Your task to perform on an android device: Go to network settings Image 0: 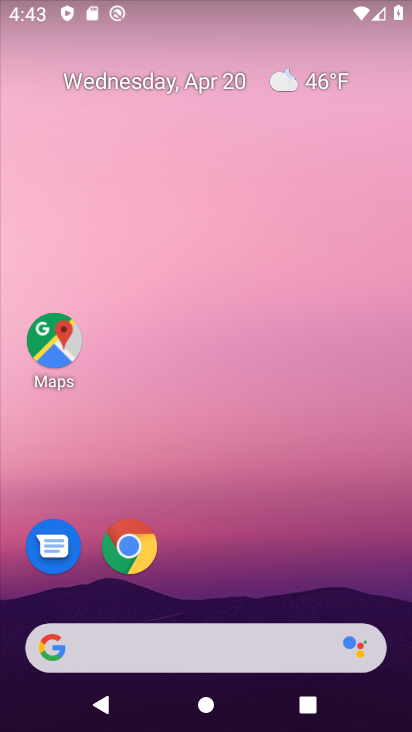
Step 0: drag from (284, 250) to (307, 109)
Your task to perform on an android device: Go to network settings Image 1: 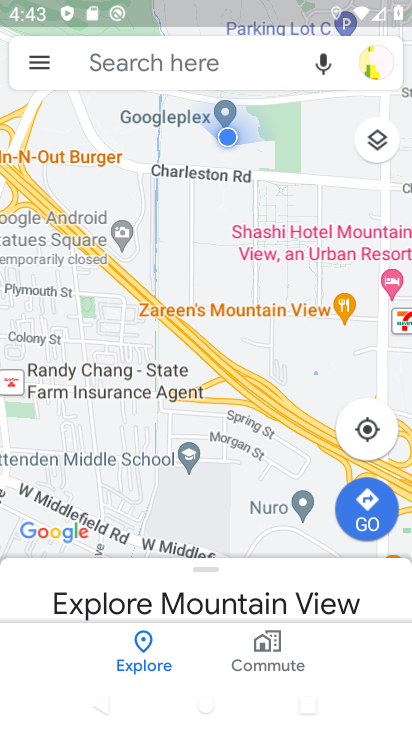
Step 1: press home button
Your task to perform on an android device: Go to network settings Image 2: 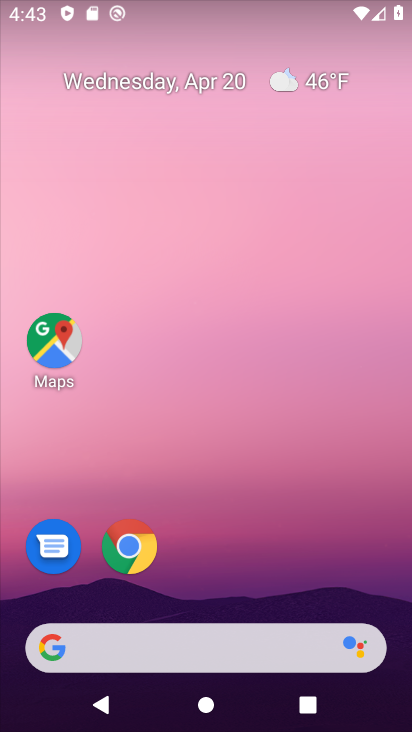
Step 2: drag from (324, 444) to (406, 73)
Your task to perform on an android device: Go to network settings Image 3: 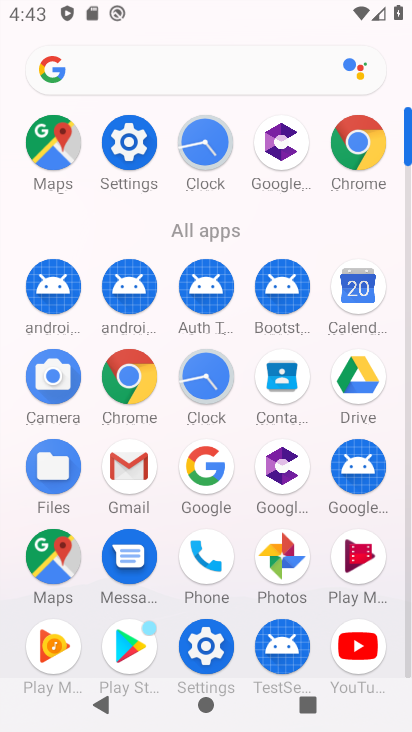
Step 3: click (132, 146)
Your task to perform on an android device: Go to network settings Image 4: 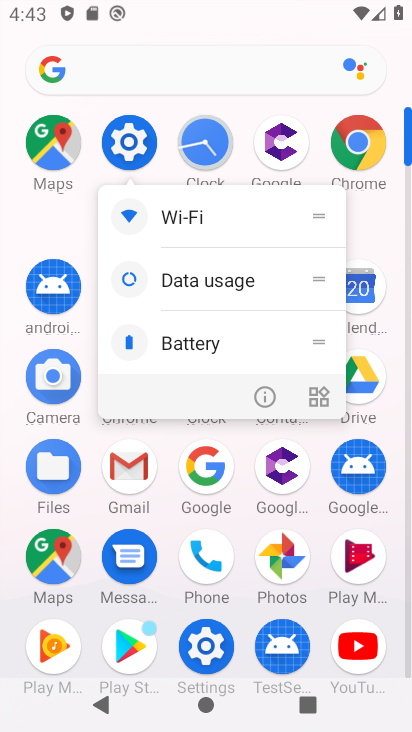
Step 4: click (132, 145)
Your task to perform on an android device: Go to network settings Image 5: 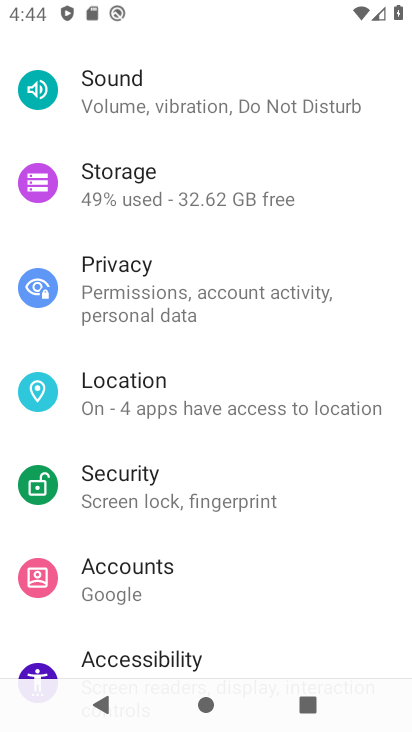
Step 5: drag from (136, 154) to (120, 525)
Your task to perform on an android device: Go to network settings Image 6: 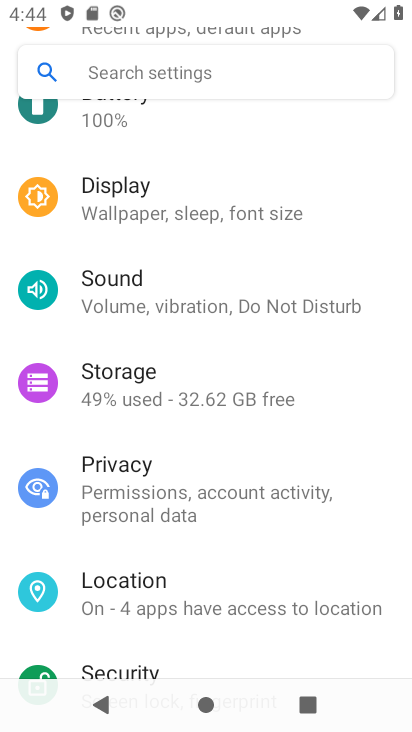
Step 6: drag from (154, 205) to (103, 529)
Your task to perform on an android device: Go to network settings Image 7: 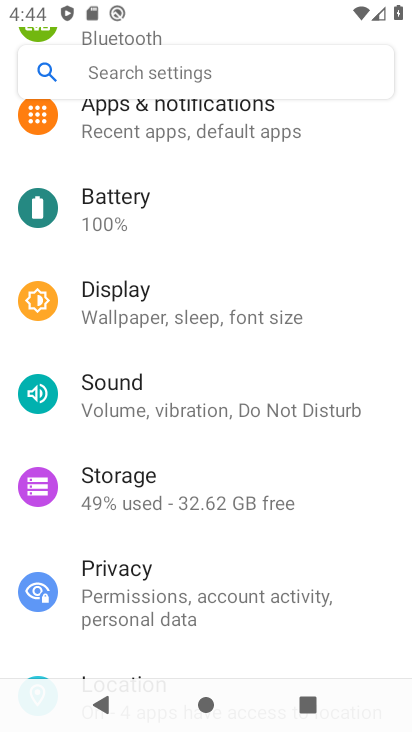
Step 7: drag from (199, 305) to (146, 568)
Your task to perform on an android device: Go to network settings Image 8: 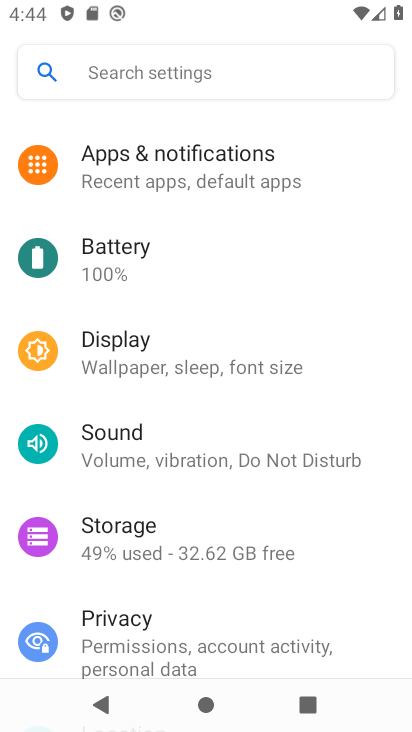
Step 8: drag from (255, 303) to (193, 604)
Your task to perform on an android device: Go to network settings Image 9: 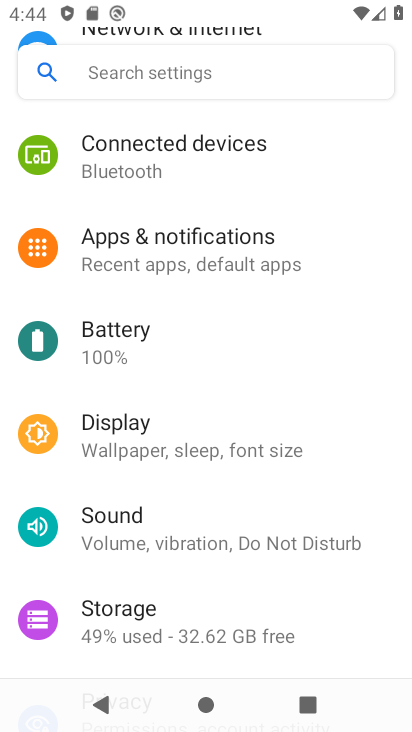
Step 9: drag from (281, 216) to (201, 596)
Your task to perform on an android device: Go to network settings Image 10: 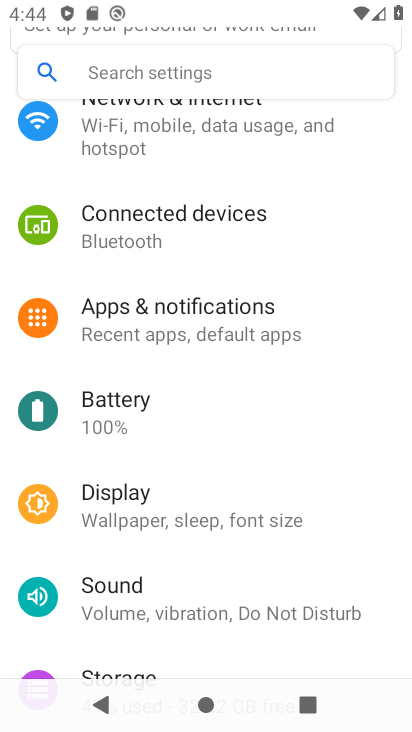
Step 10: drag from (240, 164) to (192, 571)
Your task to perform on an android device: Go to network settings Image 11: 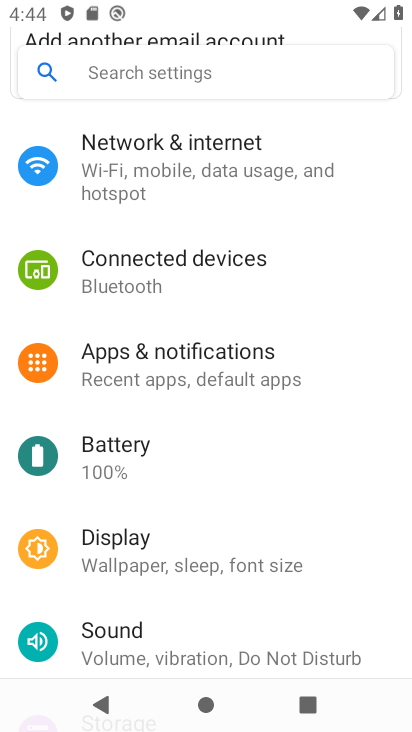
Step 11: click (174, 167)
Your task to perform on an android device: Go to network settings Image 12: 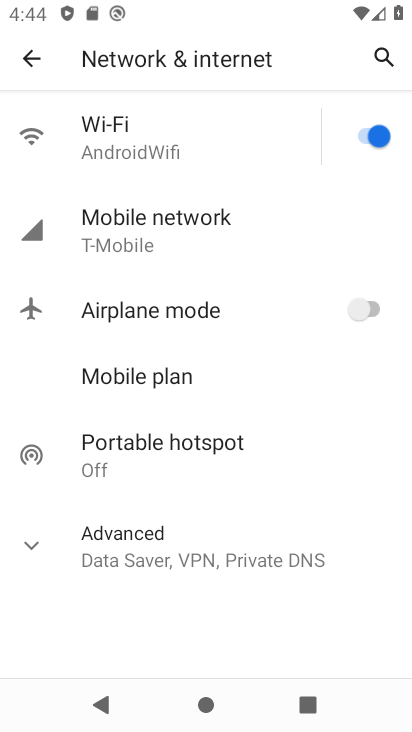
Step 12: click (131, 253)
Your task to perform on an android device: Go to network settings Image 13: 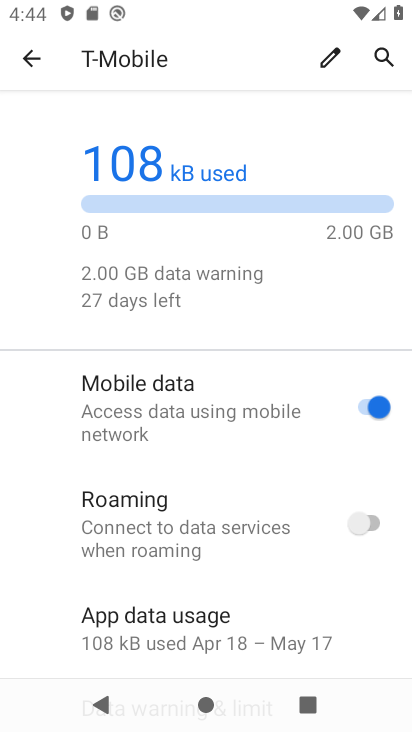
Step 13: click (195, 202)
Your task to perform on an android device: Go to network settings Image 14: 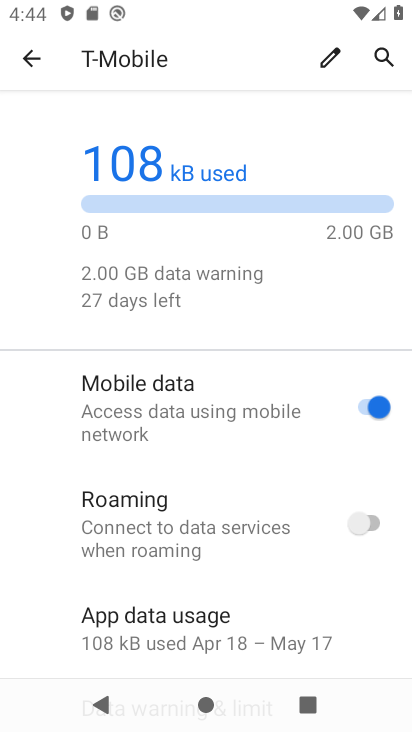
Step 14: click (194, 200)
Your task to perform on an android device: Go to network settings Image 15: 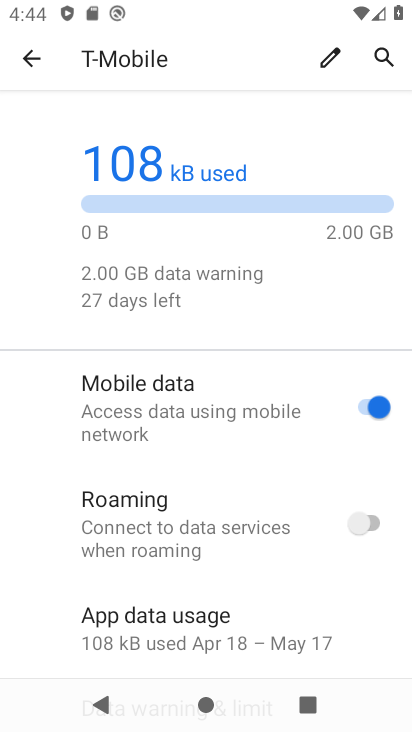
Step 15: click (194, 199)
Your task to perform on an android device: Go to network settings Image 16: 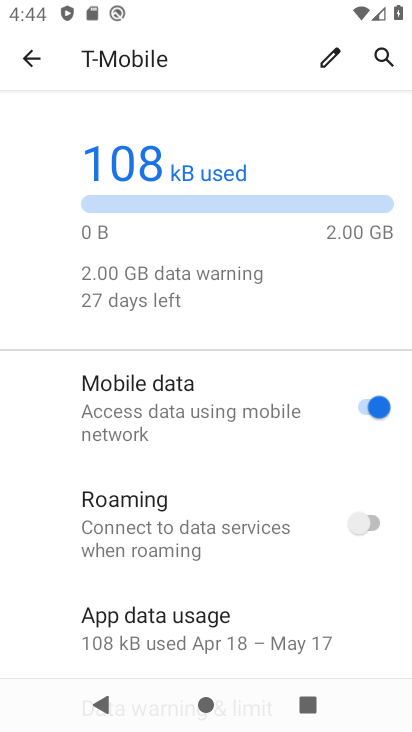
Step 16: click (151, 218)
Your task to perform on an android device: Go to network settings Image 17: 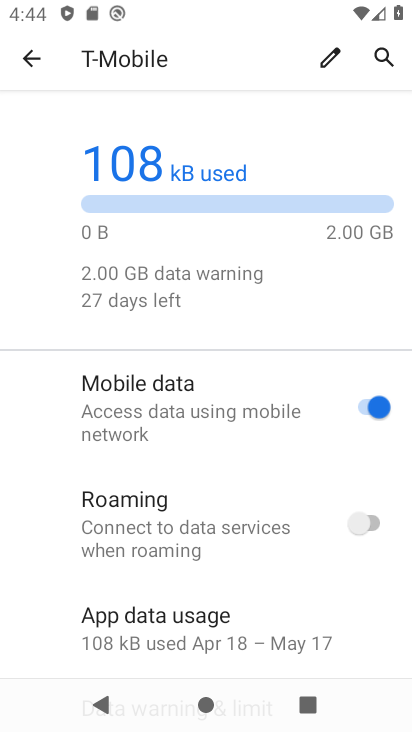
Step 17: task complete